Your task to perform on an android device: manage bookmarks in the chrome app Image 0: 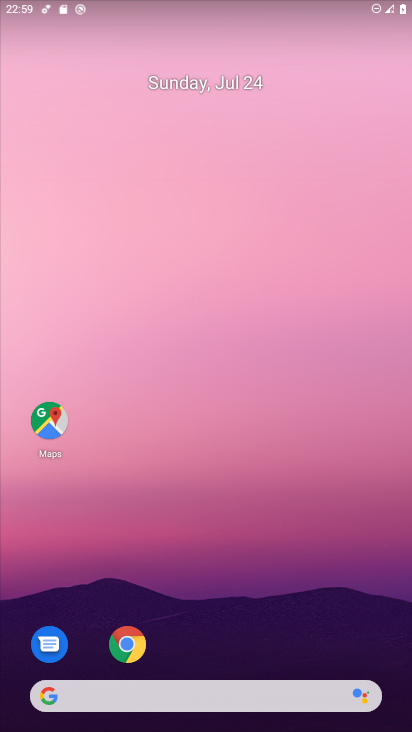
Step 0: click (336, 625)
Your task to perform on an android device: manage bookmarks in the chrome app Image 1: 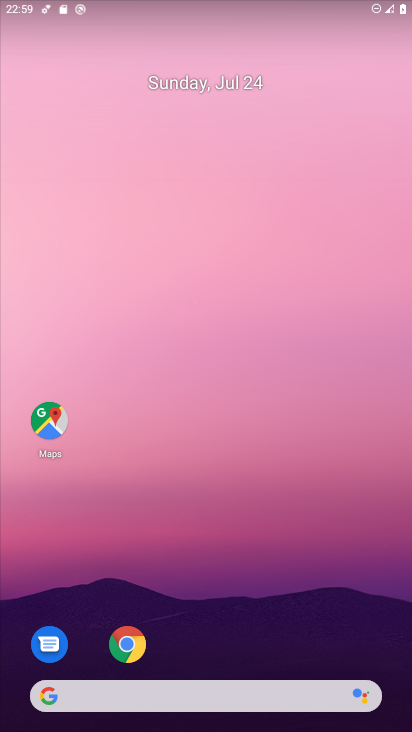
Step 1: click (131, 644)
Your task to perform on an android device: manage bookmarks in the chrome app Image 2: 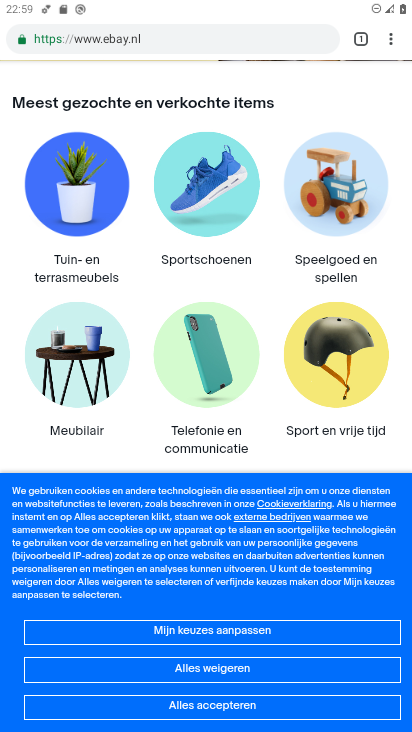
Step 2: click (390, 42)
Your task to perform on an android device: manage bookmarks in the chrome app Image 3: 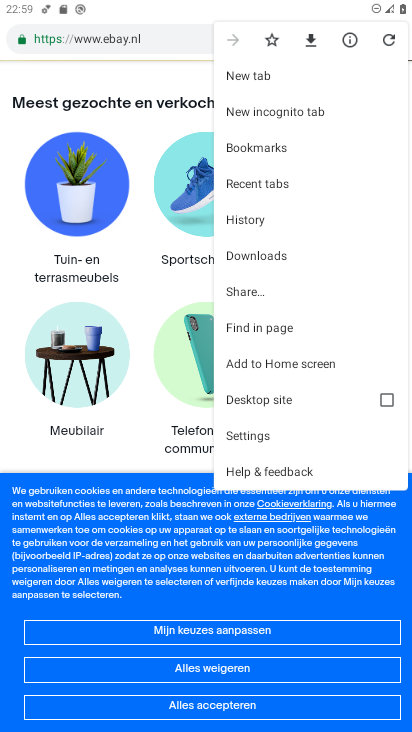
Step 3: click (250, 140)
Your task to perform on an android device: manage bookmarks in the chrome app Image 4: 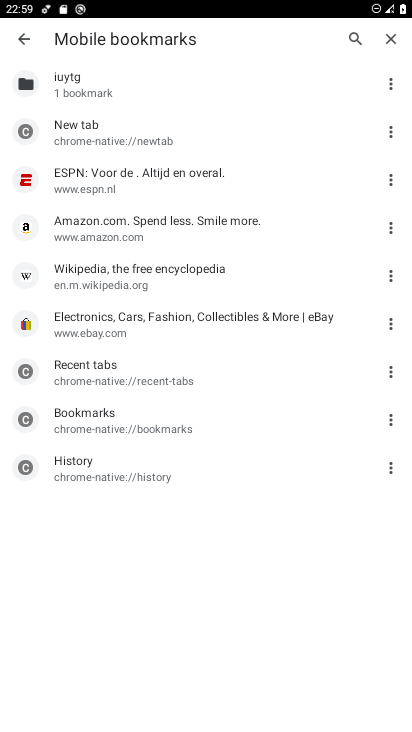
Step 4: click (77, 311)
Your task to perform on an android device: manage bookmarks in the chrome app Image 5: 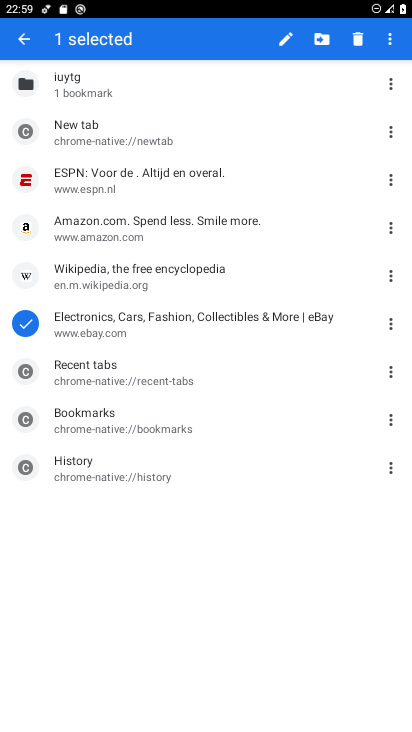
Step 5: click (319, 38)
Your task to perform on an android device: manage bookmarks in the chrome app Image 6: 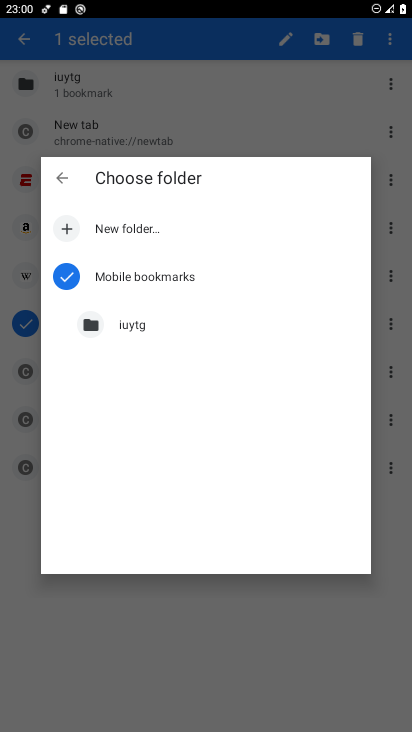
Step 6: click (64, 223)
Your task to perform on an android device: manage bookmarks in the chrome app Image 7: 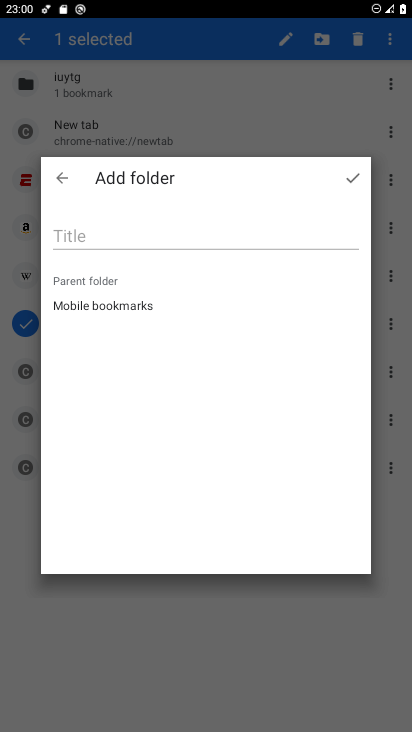
Step 7: click (82, 247)
Your task to perform on an android device: manage bookmarks in the chrome app Image 8: 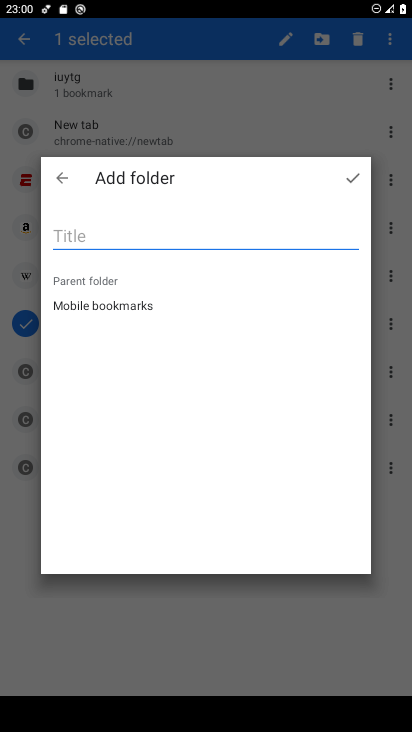
Step 8: type "jhjn"
Your task to perform on an android device: manage bookmarks in the chrome app Image 9: 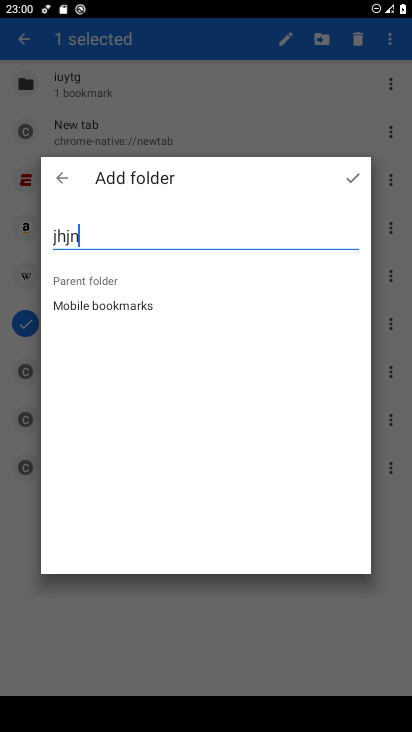
Step 9: click (353, 174)
Your task to perform on an android device: manage bookmarks in the chrome app Image 10: 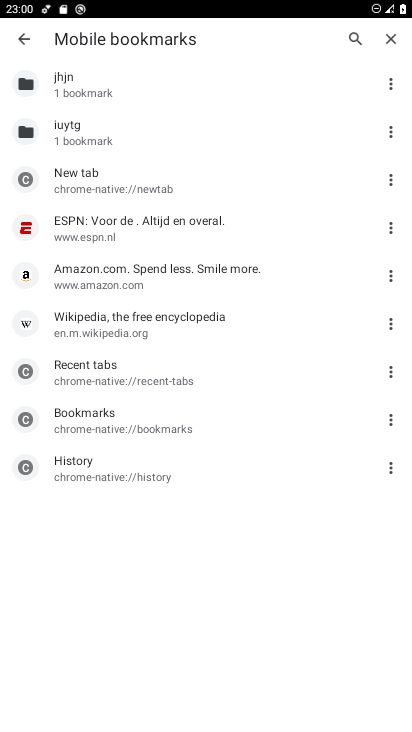
Step 10: task complete